Your task to perform on an android device: change the upload size in google photos Image 0: 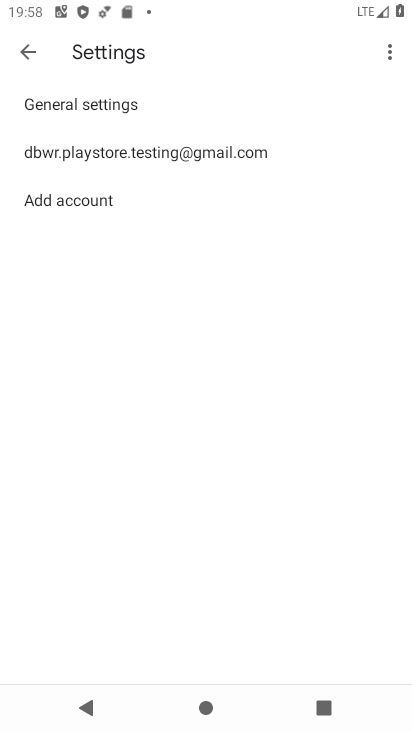
Step 0: press home button
Your task to perform on an android device: change the upload size in google photos Image 1: 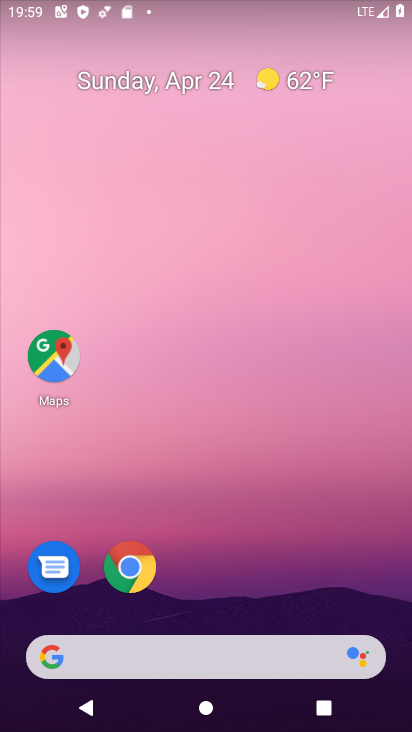
Step 1: drag from (212, 514) to (215, 119)
Your task to perform on an android device: change the upload size in google photos Image 2: 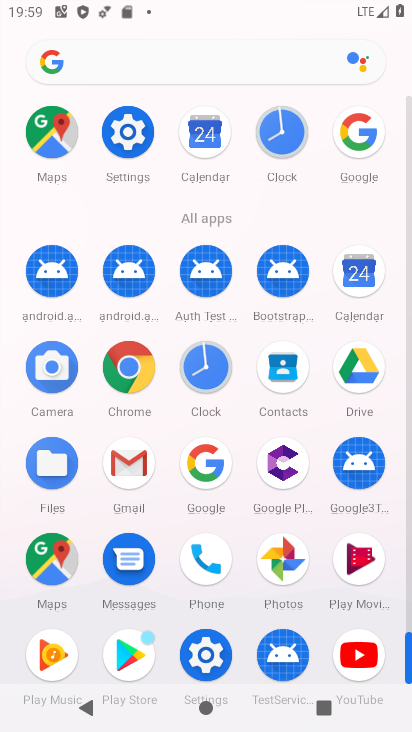
Step 2: click (283, 557)
Your task to perform on an android device: change the upload size in google photos Image 3: 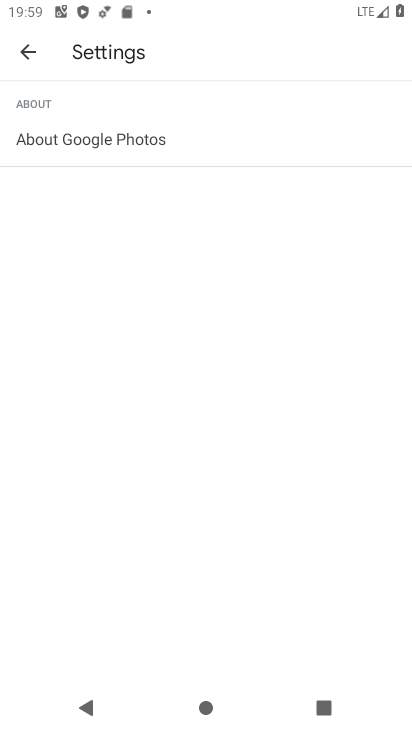
Step 3: press back button
Your task to perform on an android device: change the upload size in google photos Image 4: 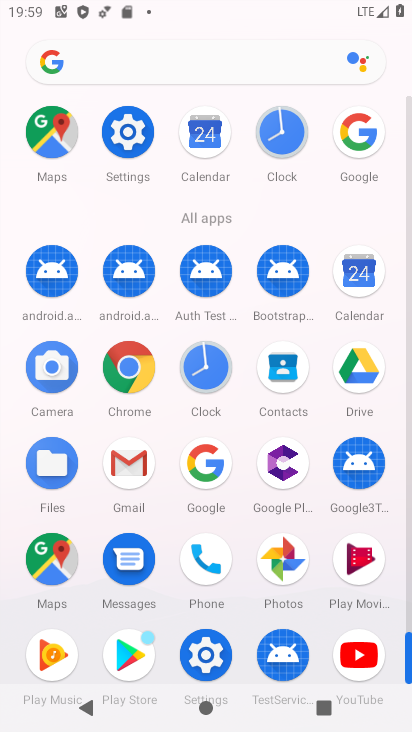
Step 4: click (284, 557)
Your task to perform on an android device: change the upload size in google photos Image 5: 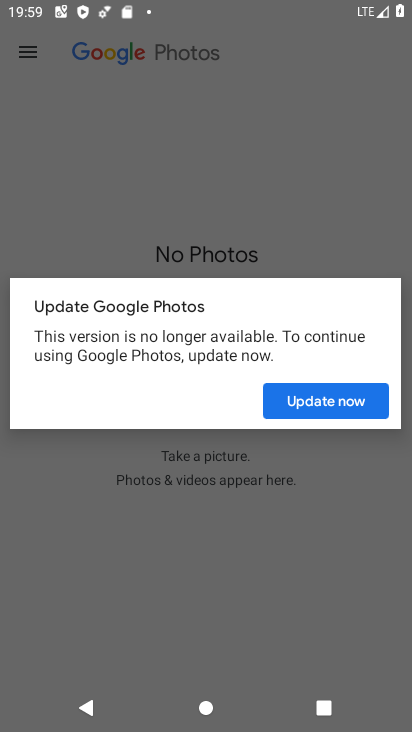
Step 5: click (355, 405)
Your task to perform on an android device: change the upload size in google photos Image 6: 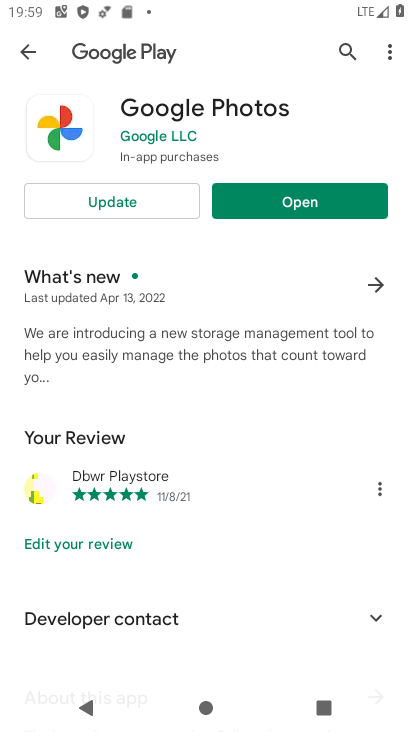
Step 6: click (167, 198)
Your task to perform on an android device: change the upload size in google photos Image 7: 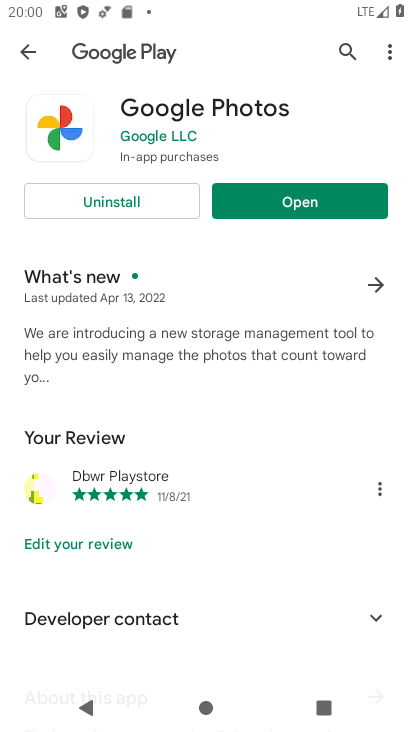
Step 7: click (279, 205)
Your task to perform on an android device: change the upload size in google photos Image 8: 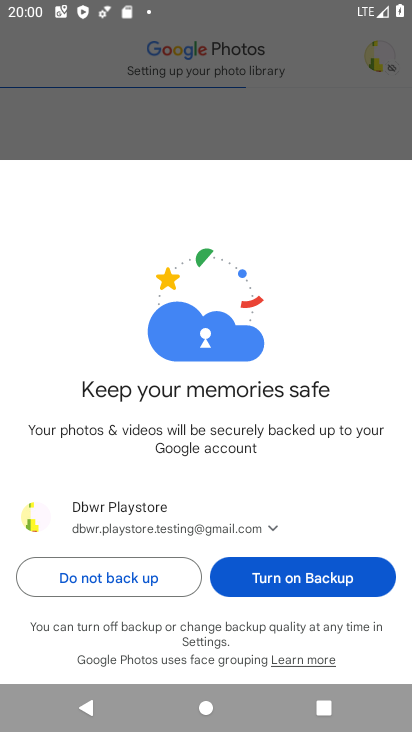
Step 8: click (287, 586)
Your task to perform on an android device: change the upload size in google photos Image 9: 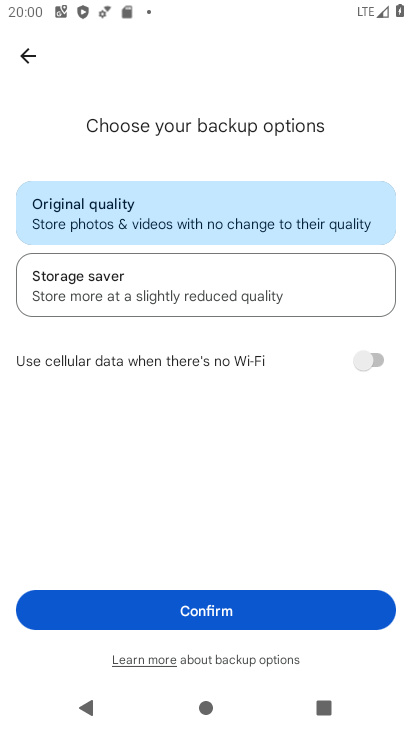
Step 9: click (230, 286)
Your task to perform on an android device: change the upload size in google photos Image 10: 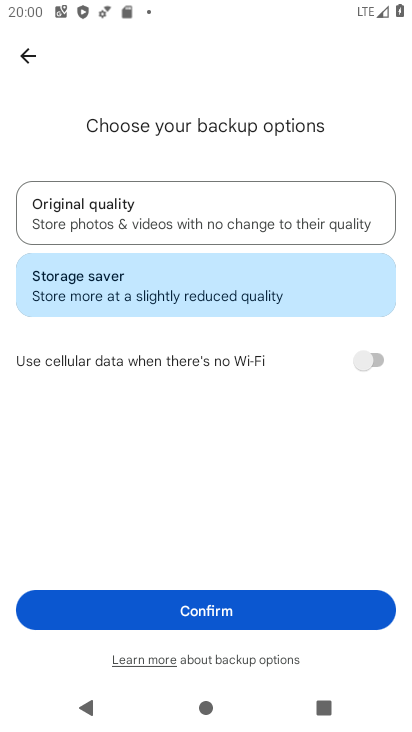
Step 10: click (226, 609)
Your task to perform on an android device: change the upload size in google photos Image 11: 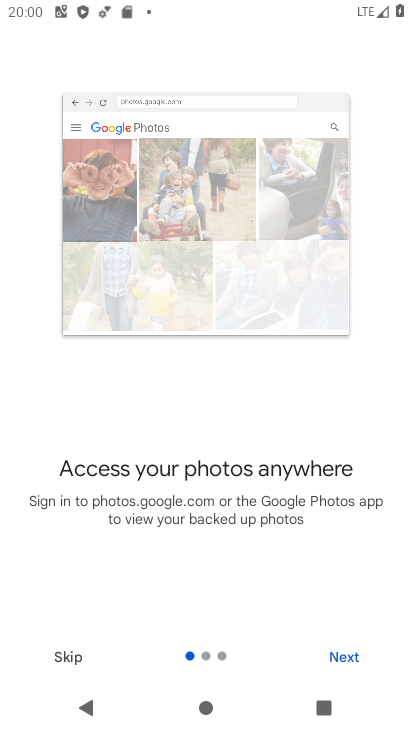
Step 11: click (67, 660)
Your task to perform on an android device: change the upload size in google photos Image 12: 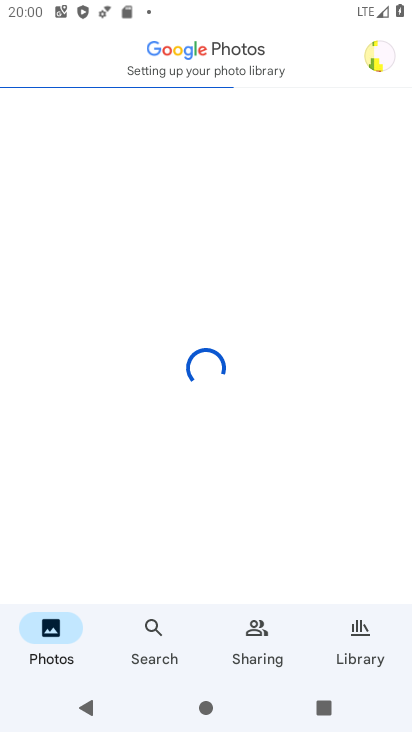
Step 12: task complete